Your task to perform on an android device: Go to ESPN.com Image 0: 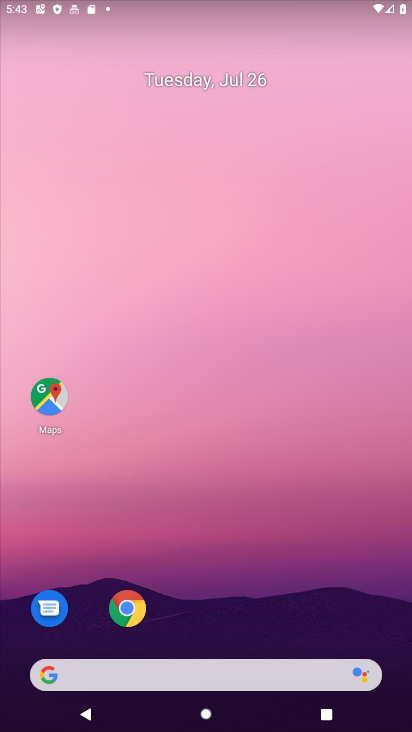
Step 0: press home button
Your task to perform on an android device: Go to ESPN.com Image 1: 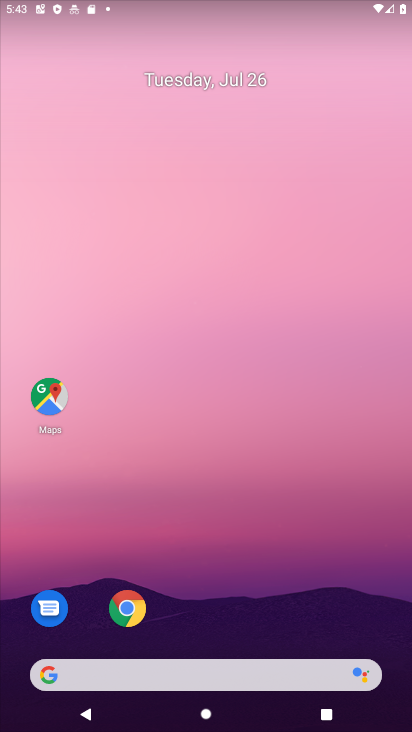
Step 1: click (40, 676)
Your task to perform on an android device: Go to ESPN.com Image 2: 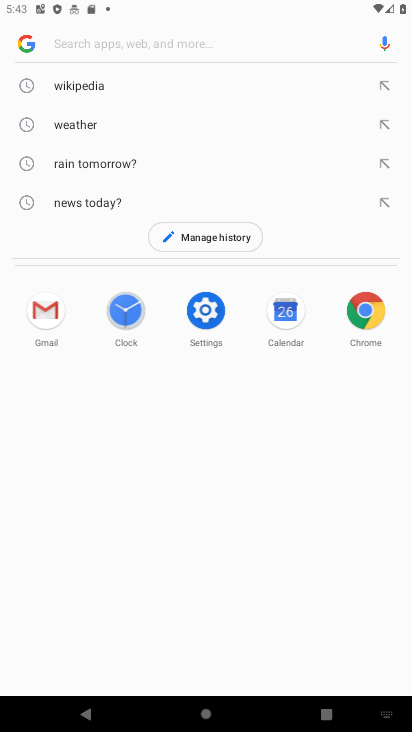
Step 2: type "ESPN.com"
Your task to perform on an android device: Go to ESPN.com Image 3: 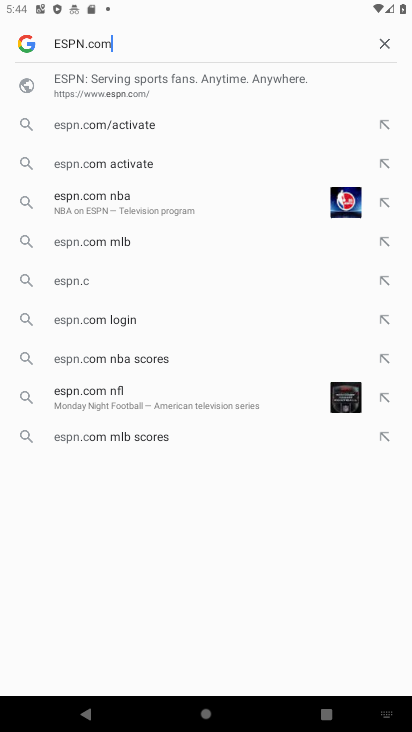
Step 3: press enter
Your task to perform on an android device: Go to ESPN.com Image 4: 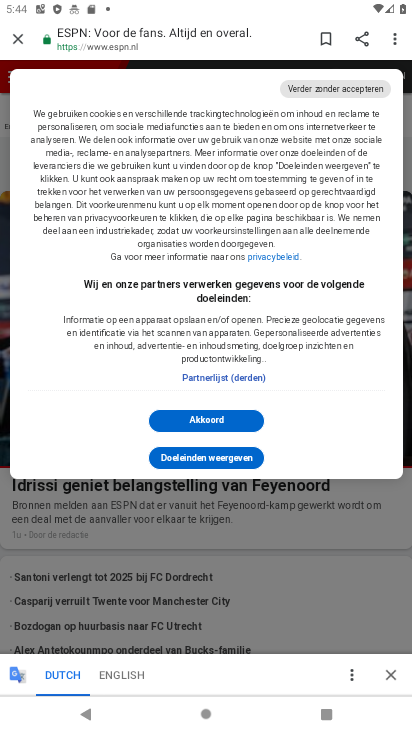
Step 4: task complete